Your task to perform on an android device: turn pop-ups off in chrome Image 0: 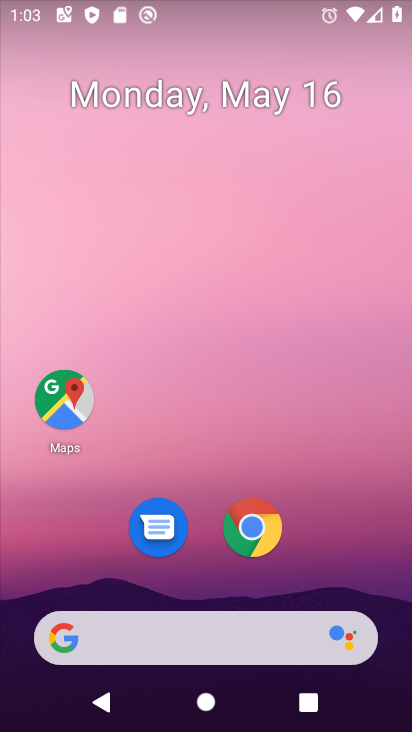
Step 0: drag from (345, 568) to (273, 47)
Your task to perform on an android device: turn pop-ups off in chrome Image 1: 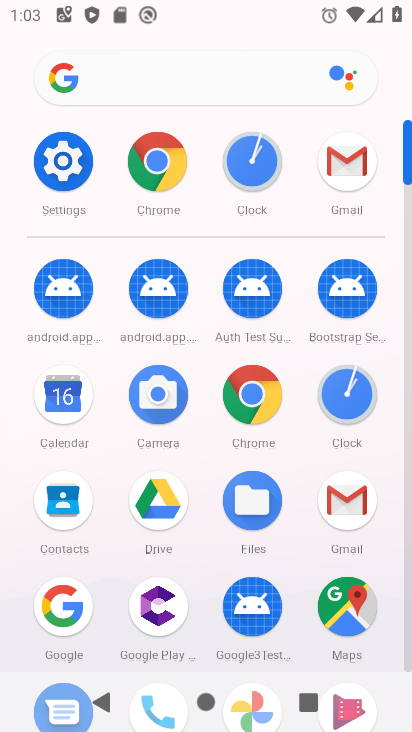
Step 1: click (173, 182)
Your task to perform on an android device: turn pop-ups off in chrome Image 2: 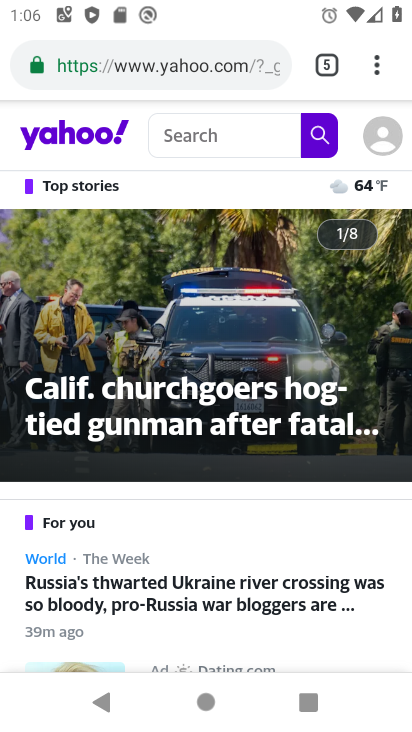
Step 2: click (384, 73)
Your task to perform on an android device: turn pop-ups off in chrome Image 3: 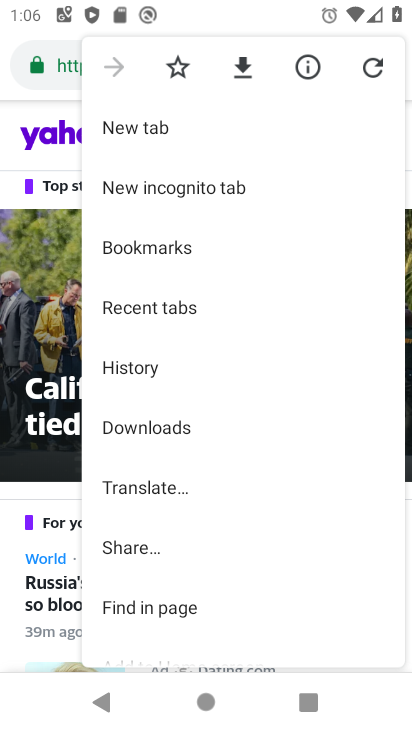
Step 3: drag from (190, 544) to (214, 244)
Your task to perform on an android device: turn pop-ups off in chrome Image 4: 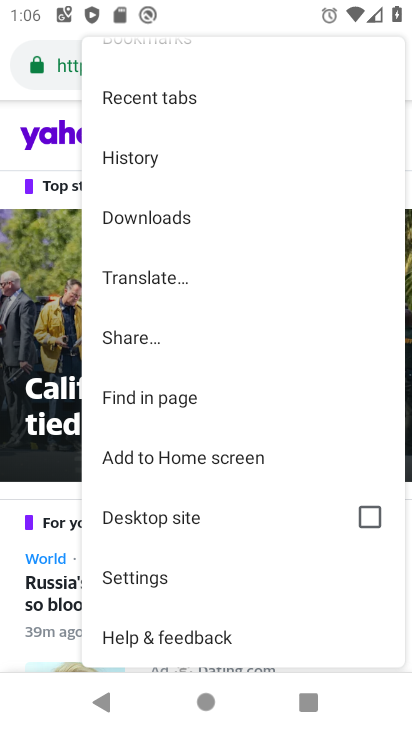
Step 4: click (180, 570)
Your task to perform on an android device: turn pop-ups off in chrome Image 5: 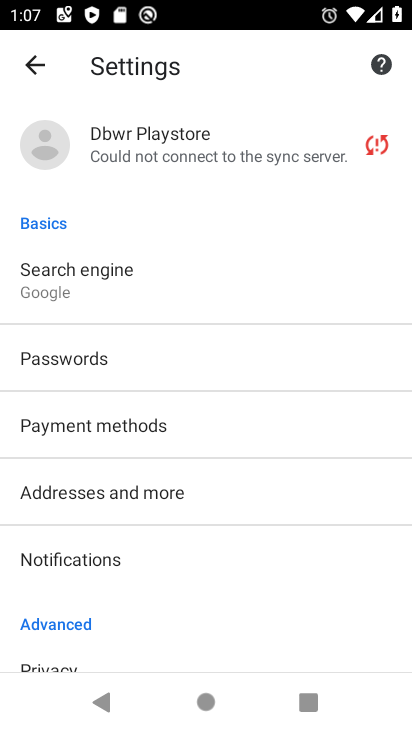
Step 5: click (171, 557)
Your task to perform on an android device: turn pop-ups off in chrome Image 6: 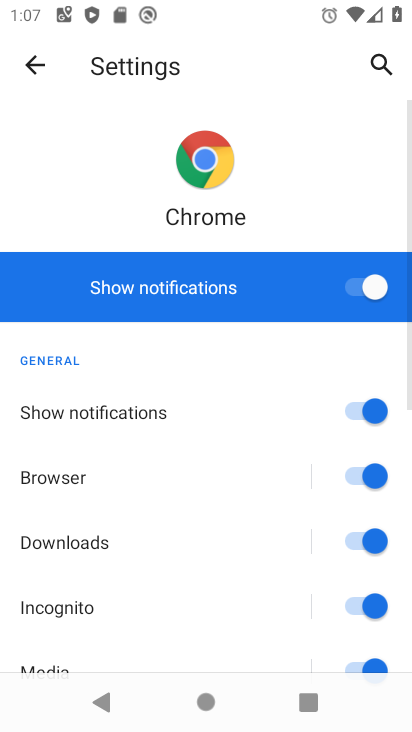
Step 6: click (22, 70)
Your task to perform on an android device: turn pop-ups off in chrome Image 7: 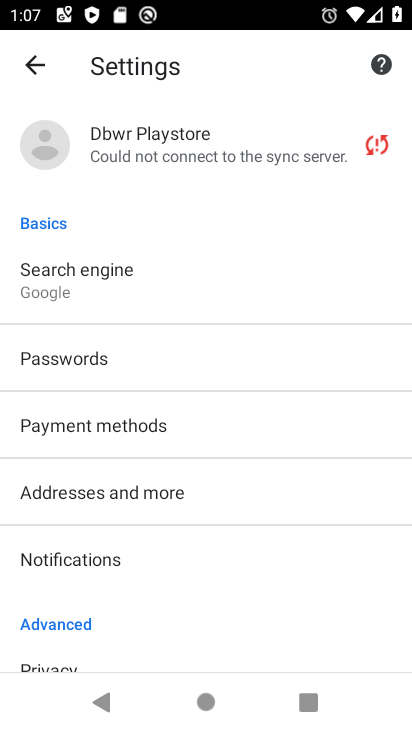
Step 7: drag from (109, 597) to (186, 160)
Your task to perform on an android device: turn pop-ups off in chrome Image 8: 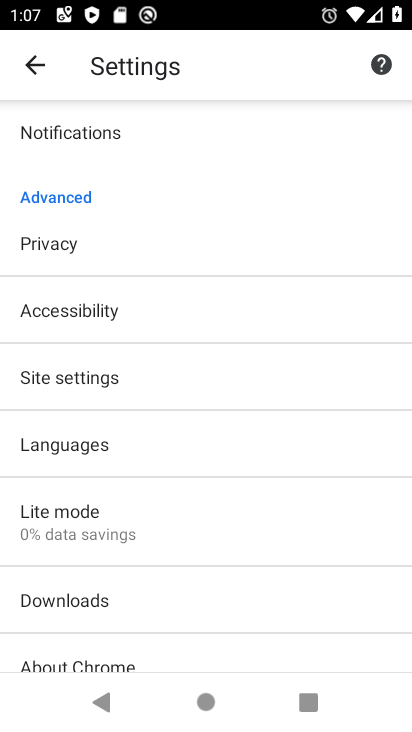
Step 8: click (172, 385)
Your task to perform on an android device: turn pop-ups off in chrome Image 9: 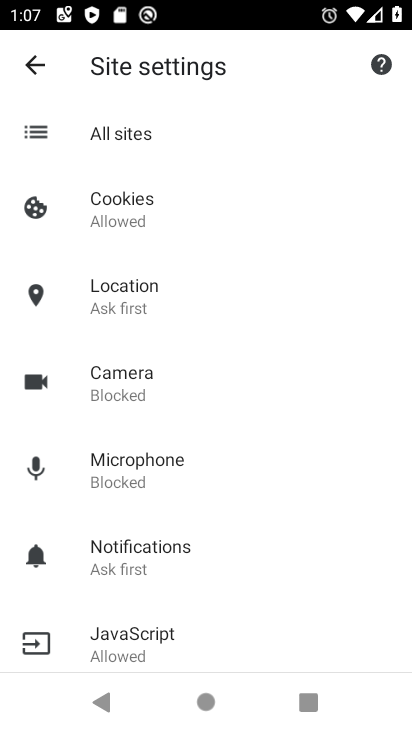
Step 9: drag from (154, 595) to (175, 351)
Your task to perform on an android device: turn pop-ups off in chrome Image 10: 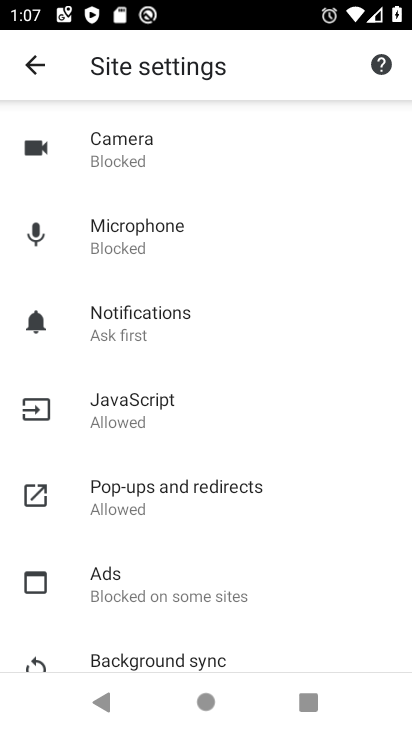
Step 10: click (166, 494)
Your task to perform on an android device: turn pop-ups off in chrome Image 11: 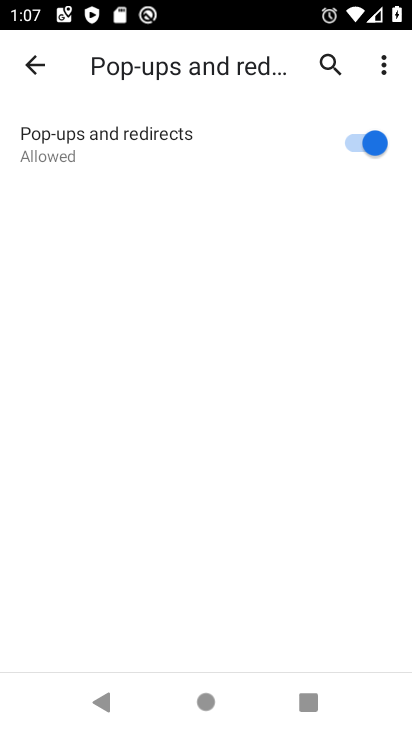
Step 11: click (363, 159)
Your task to perform on an android device: turn pop-ups off in chrome Image 12: 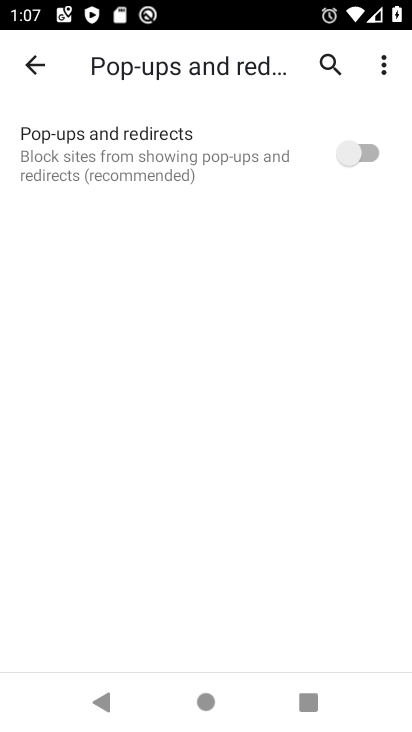
Step 12: task complete